Your task to perform on an android device: Go to CNN.com Image 0: 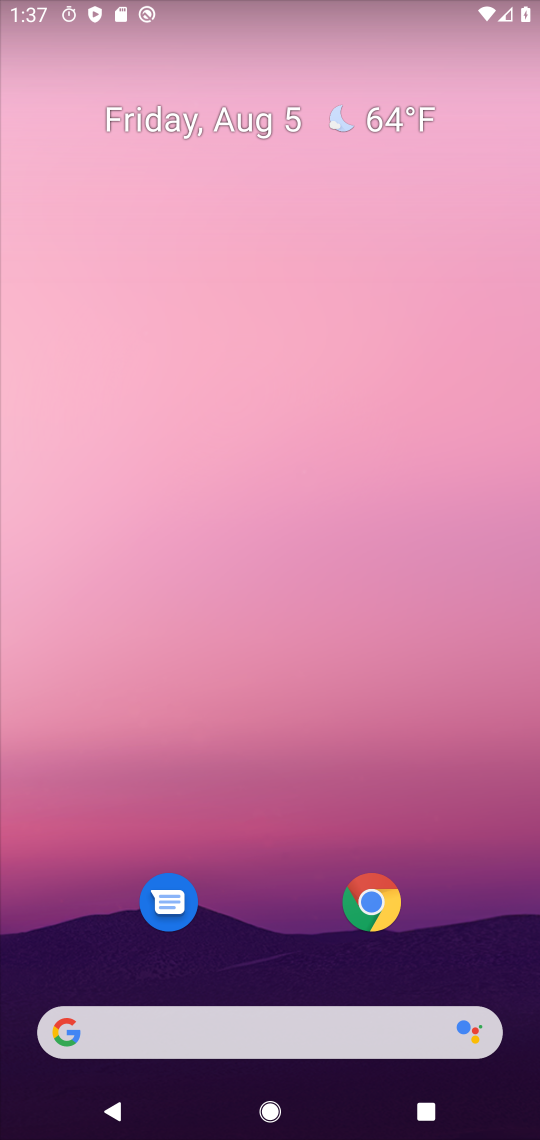
Step 0: press home button
Your task to perform on an android device: Go to CNN.com Image 1: 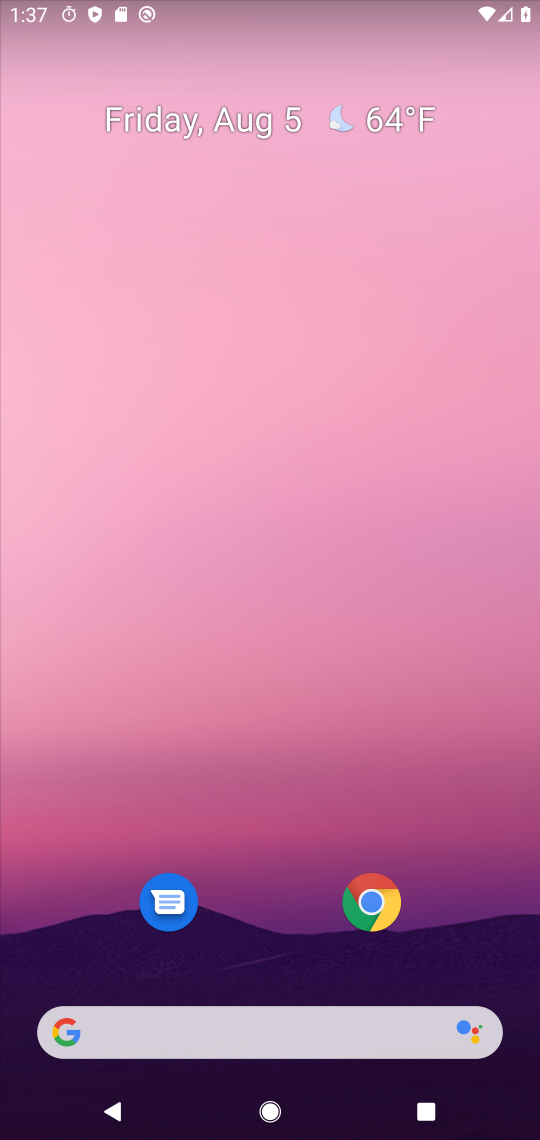
Step 1: drag from (316, 1056) to (268, 183)
Your task to perform on an android device: Go to CNN.com Image 2: 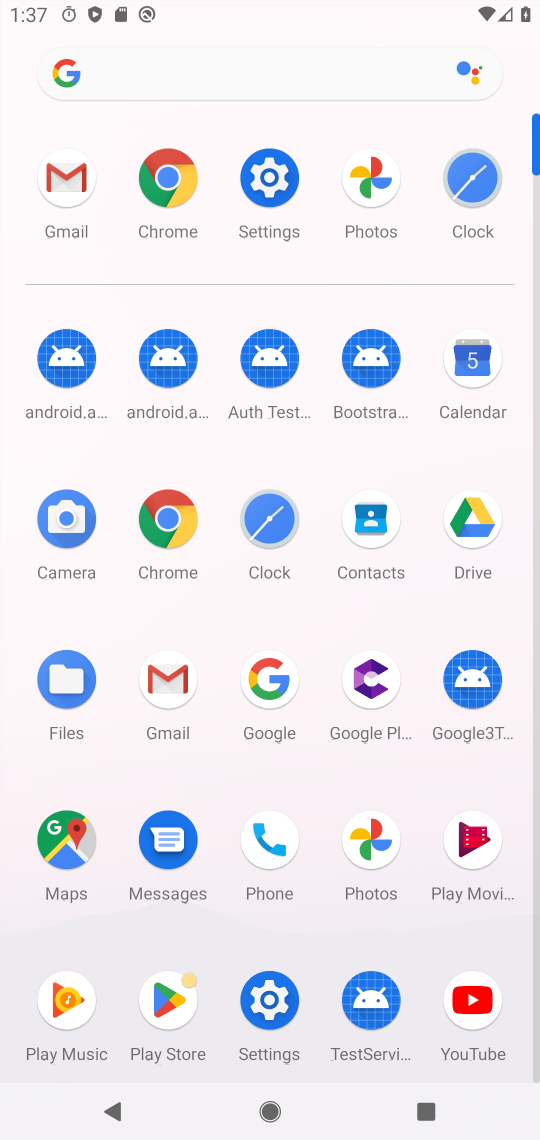
Step 2: click (188, 200)
Your task to perform on an android device: Go to CNN.com Image 3: 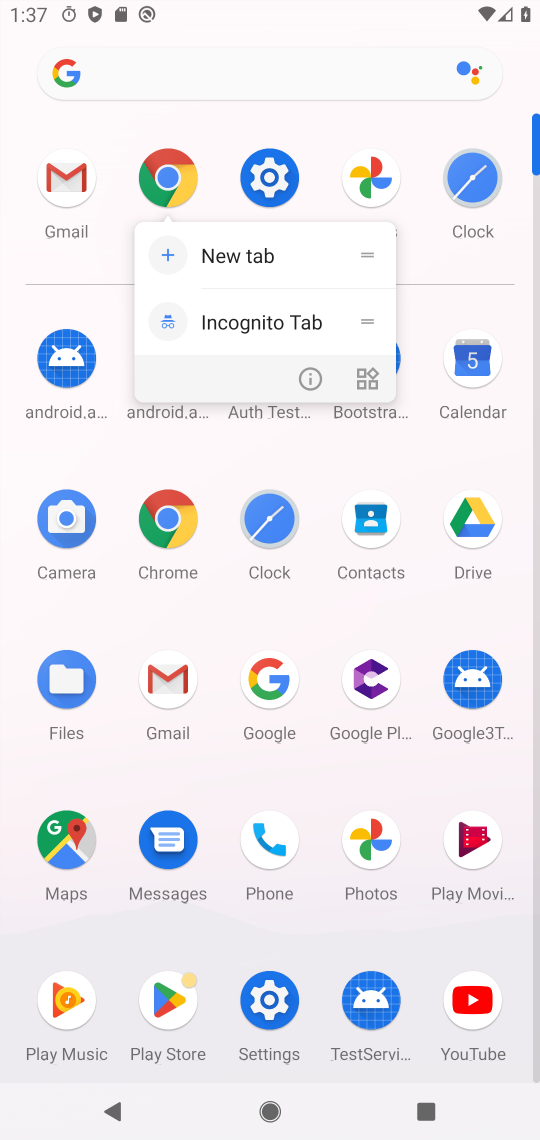
Step 3: click (157, 185)
Your task to perform on an android device: Go to CNN.com Image 4: 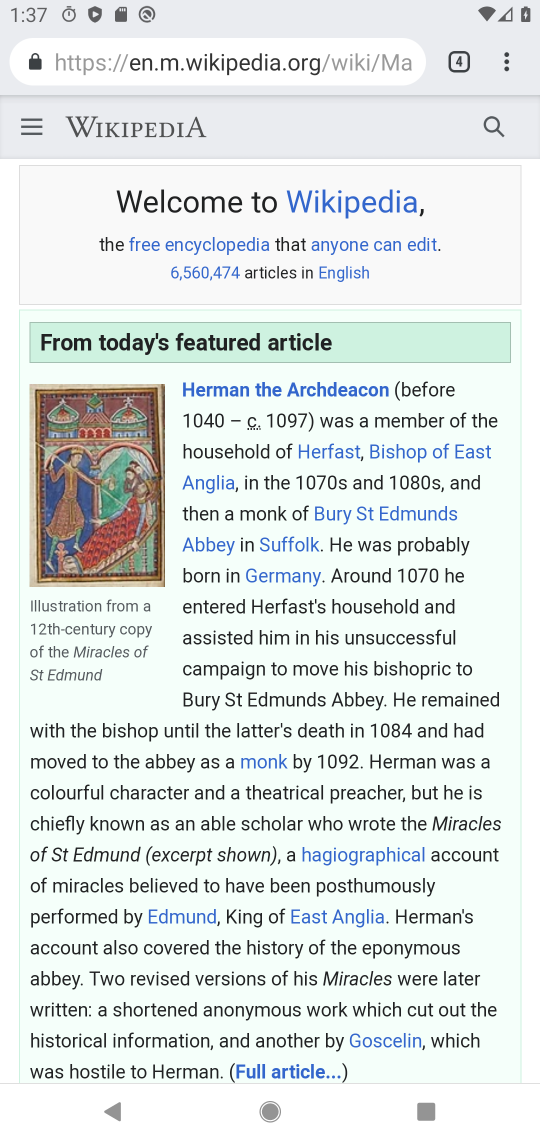
Step 4: click (172, 56)
Your task to perform on an android device: Go to CNN.com Image 5: 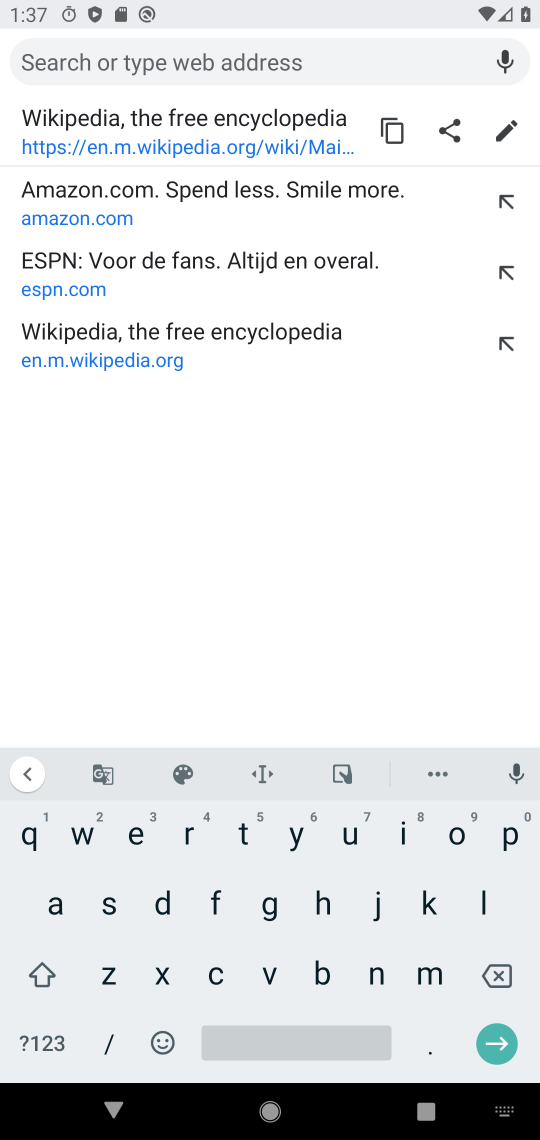
Step 5: click (208, 954)
Your task to perform on an android device: Go to CNN.com Image 6: 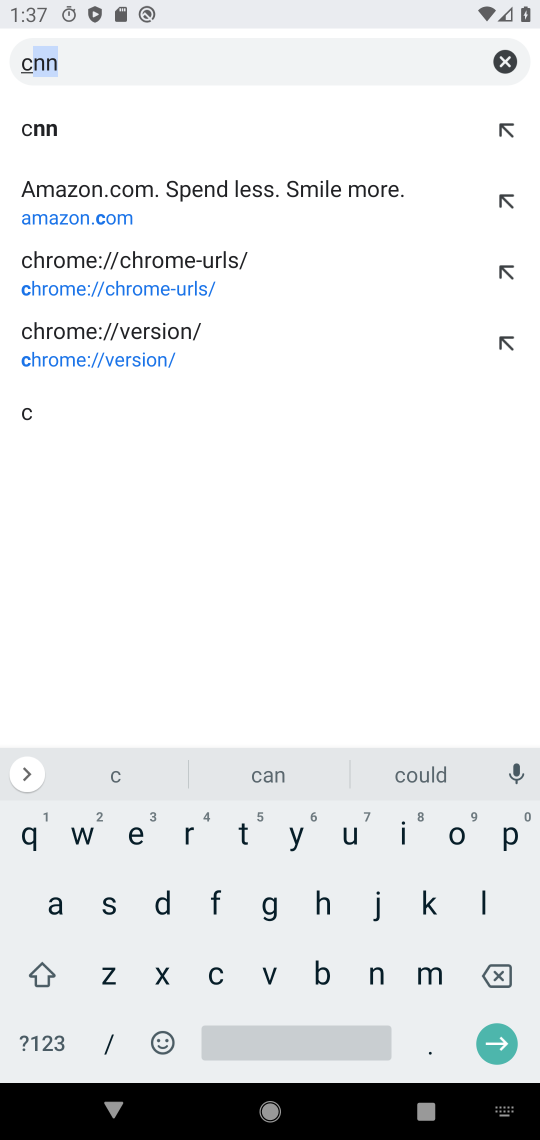
Step 6: click (107, 64)
Your task to perform on an android device: Go to CNN.com Image 7: 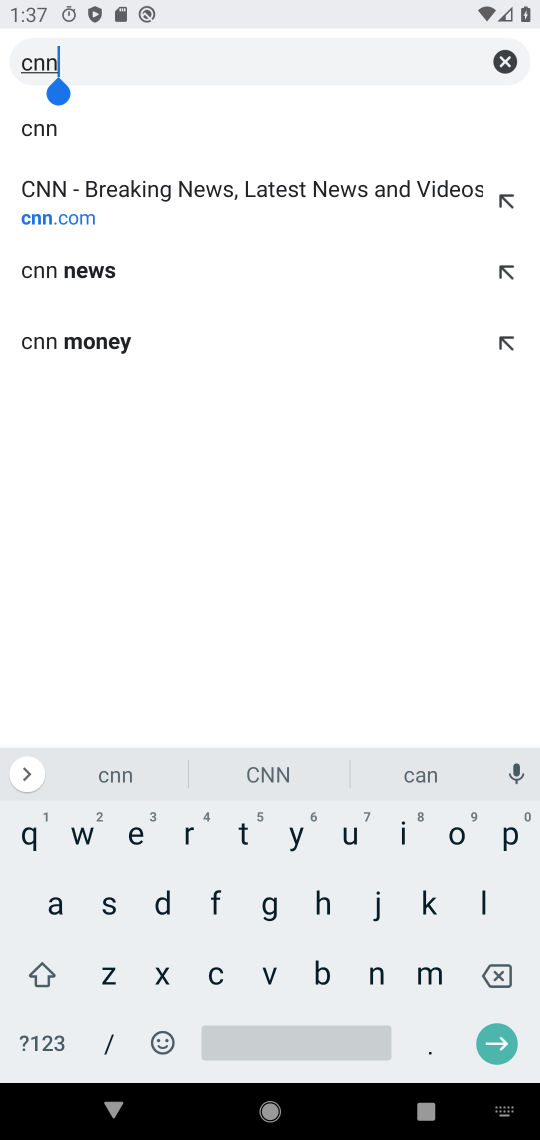
Step 7: click (498, 1034)
Your task to perform on an android device: Go to CNN.com Image 8: 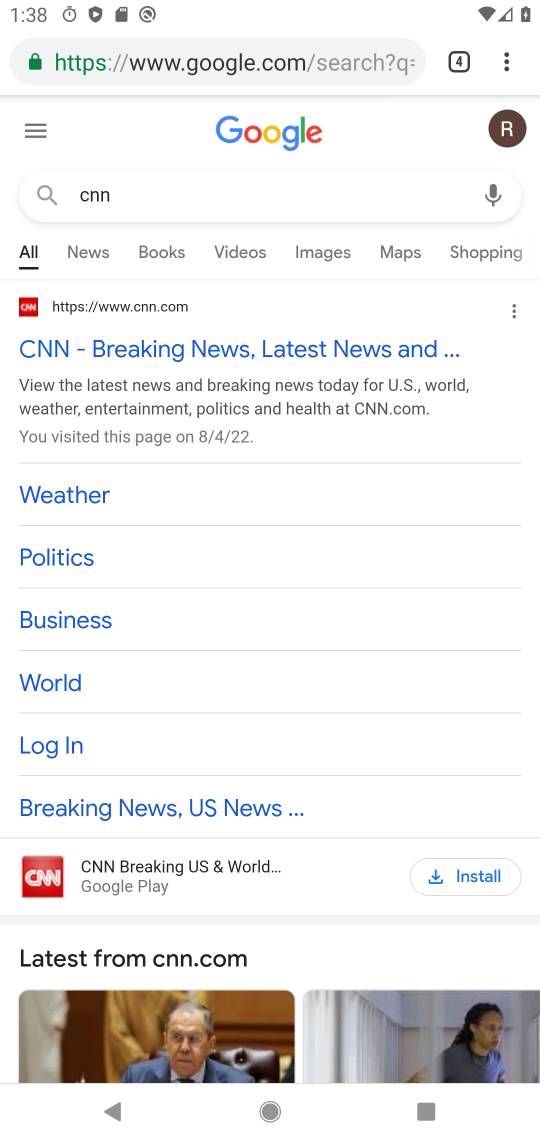
Step 8: click (88, 360)
Your task to perform on an android device: Go to CNN.com Image 9: 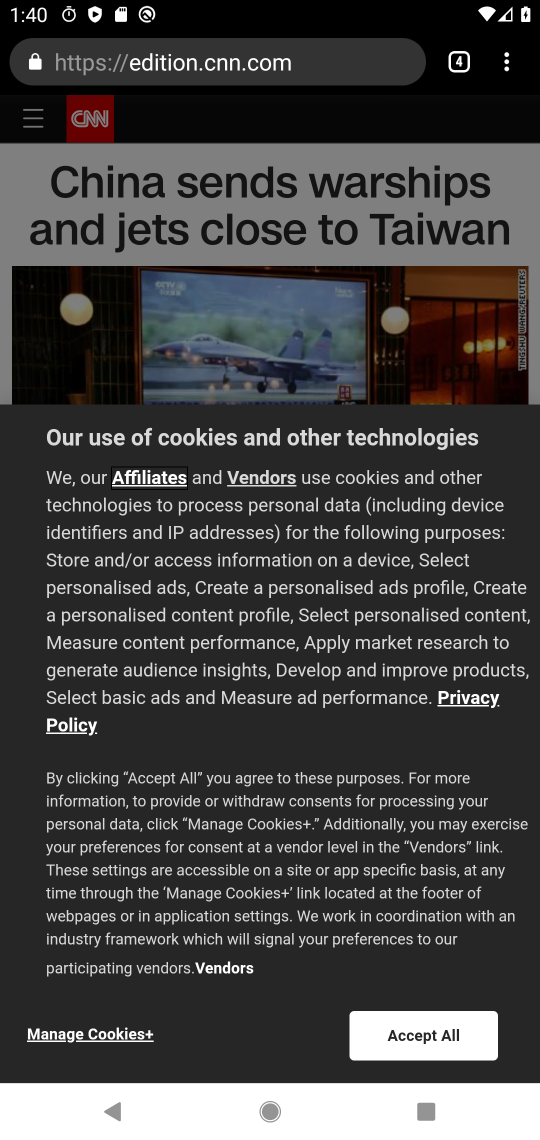
Step 9: task complete